Your task to perform on an android device: delete location history Image 0: 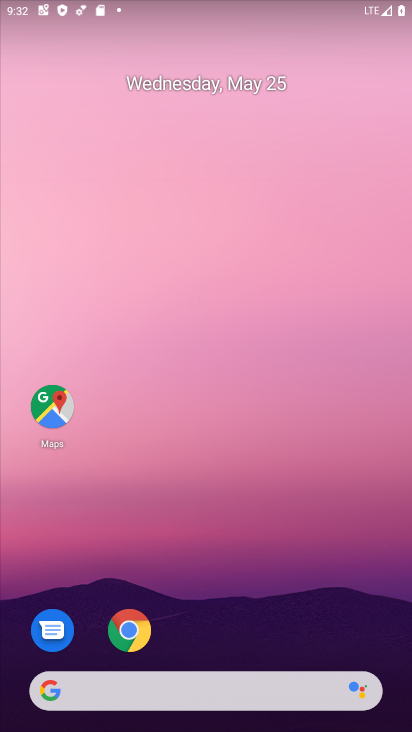
Step 0: click (24, 400)
Your task to perform on an android device: delete location history Image 1: 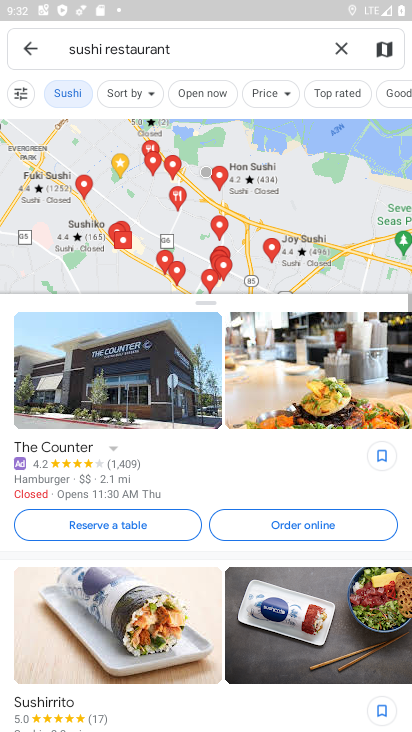
Step 1: click (33, 53)
Your task to perform on an android device: delete location history Image 2: 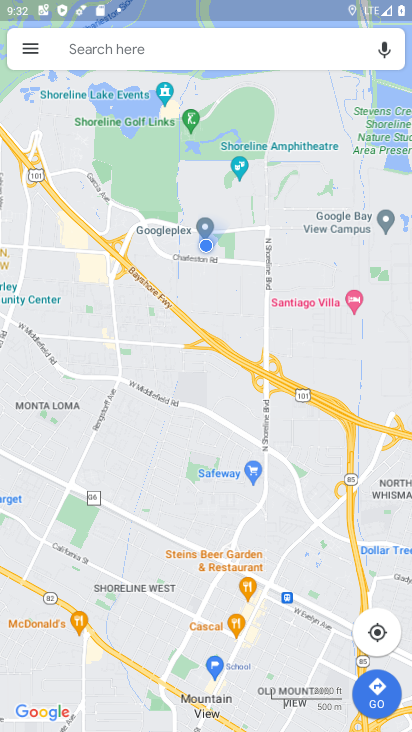
Step 2: click (34, 48)
Your task to perform on an android device: delete location history Image 3: 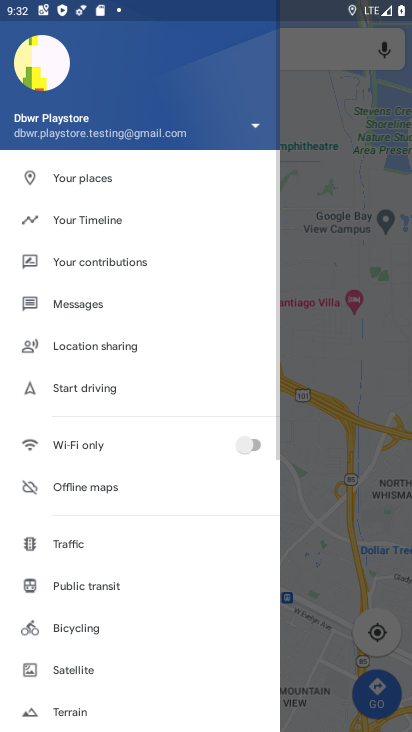
Step 3: click (126, 218)
Your task to perform on an android device: delete location history Image 4: 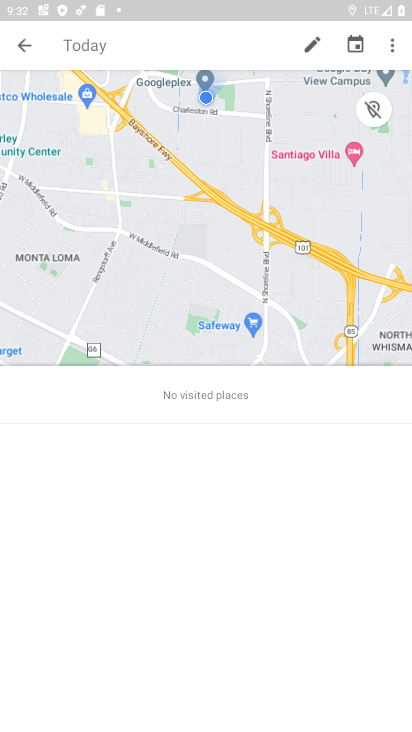
Step 4: click (396, 48)
Your task to perform on an android device: delete location history Image 5: 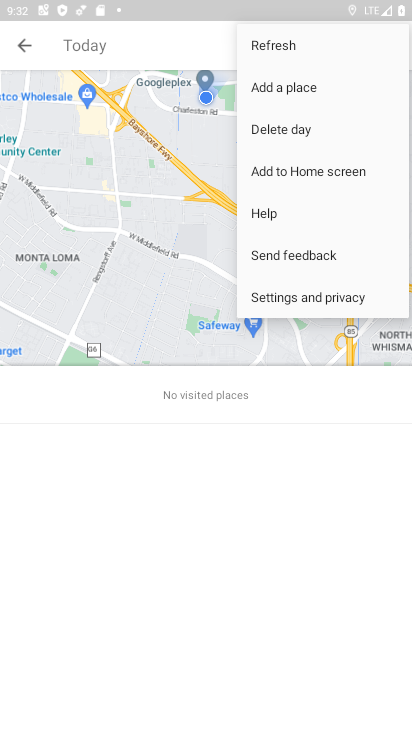
Step 5: click (309, 297)
Your task to perform on an android device: delete location history Image 6: 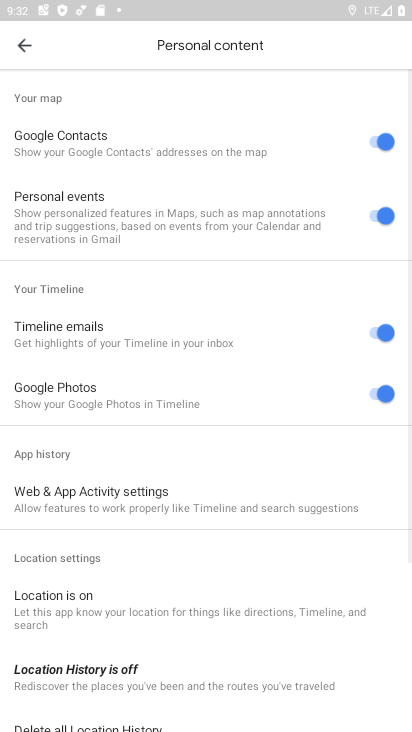
Step 6: drag from (128, 682) to (178, 386)
Your task to perform on an android device: delete location history Image 7: 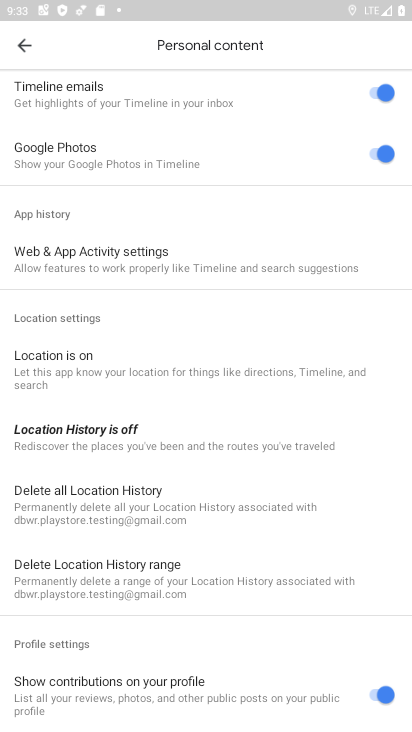
Step 7: click (156, 512)
Your task to perform on an android device: delete location history Image 8: 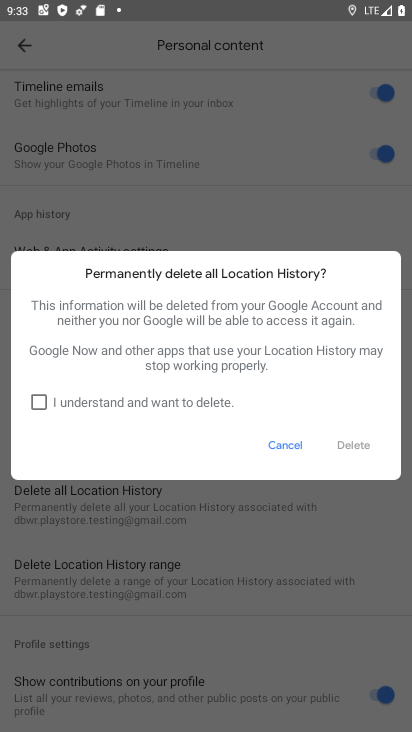
Step 8: click (48, 395)
Your task to perform on an android device: delete location history Image 9: 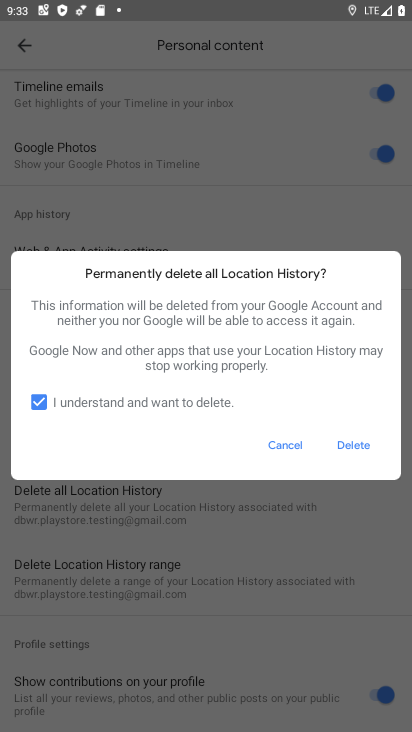
Step 9: click (373, 453)
Your task to perform on an android device: delete location history Image 10: 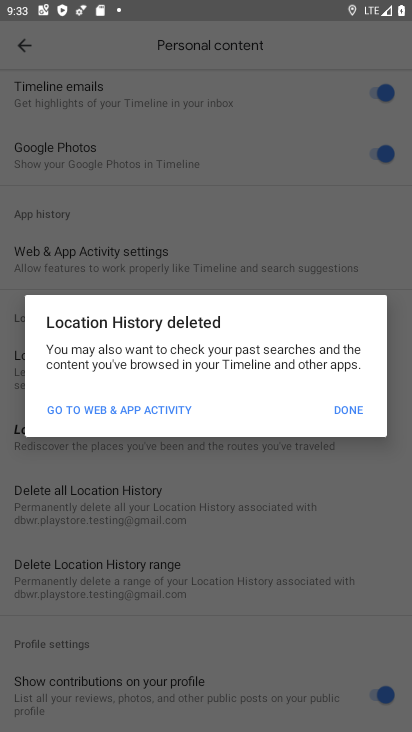
Step 10: click (340, 408)
Your task to perform on an android device: delete location history Image 11: 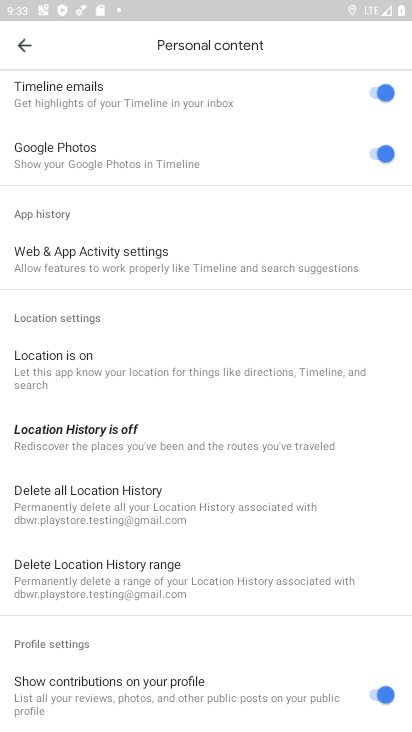
Step 11: task complete